Your task to perform on an android device: See recent photos Image 0: 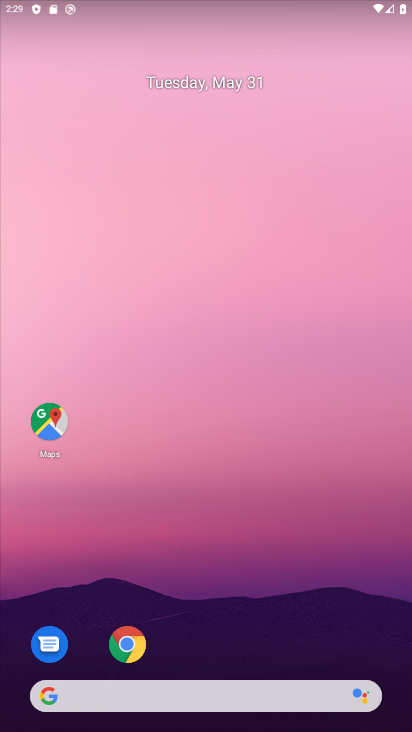
Step 0: press home button
Your task to perform on an android device: See recent photos Image 1: 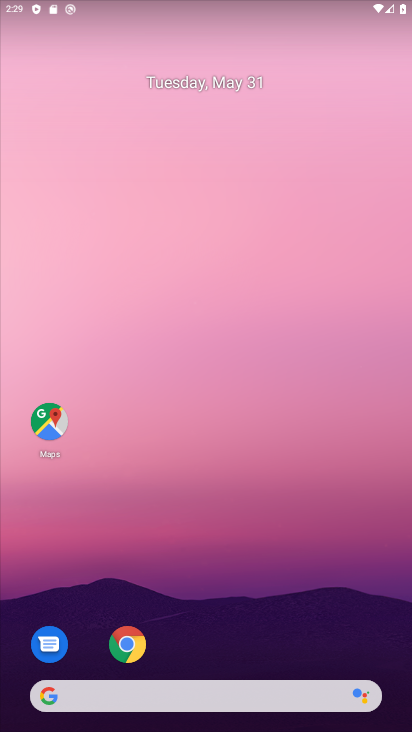
Step 1: drag from (261, 649) to (311, 53)
Your task to perform on an android device: See recent photos Image 2: 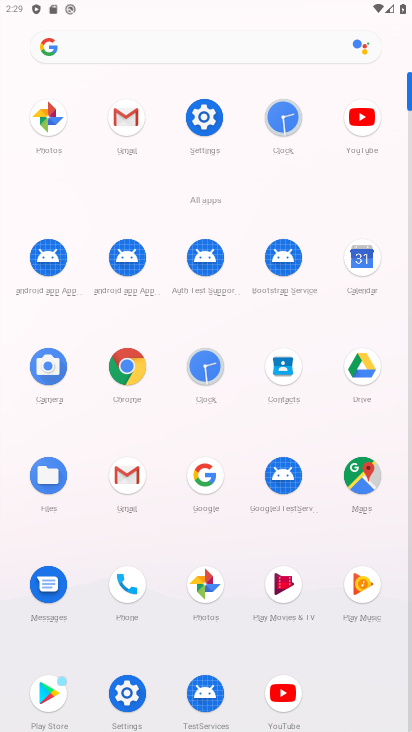
Step 2: click (50, 113)
Your task to perform on an android device: See recent photos Image 3: 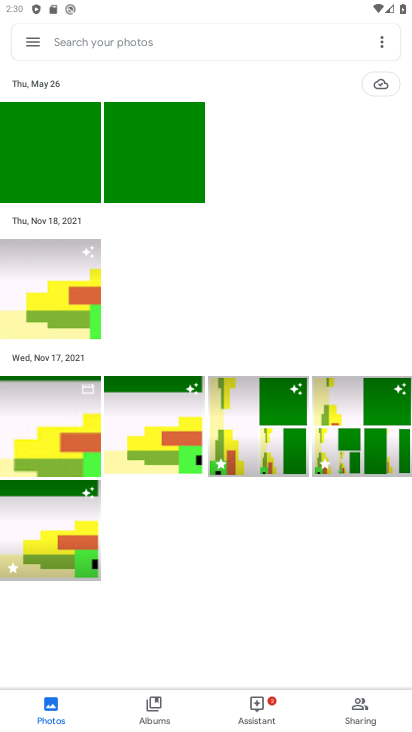
Step 3: task complete